Your task to perform on an android device: visit the assistant section in the google photos Image 0: 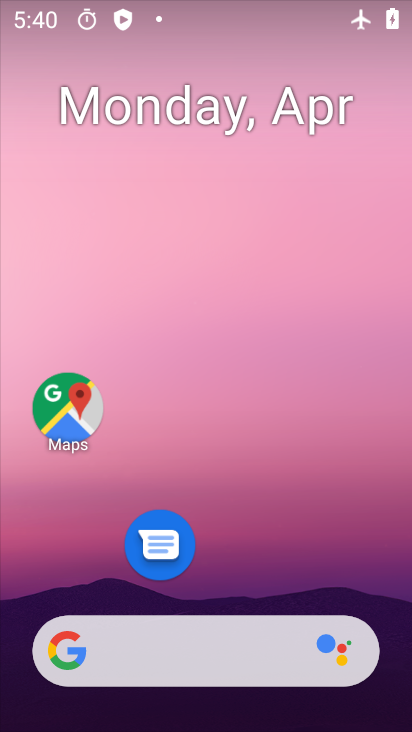
Step 0: drag from (285, 461) to (332, 173)
Your task to perform on an android device: visit the assistant section in the google photos Image 1: 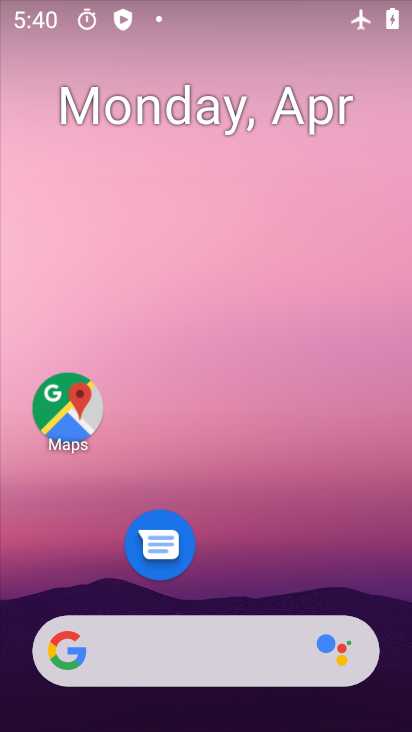
Step 1: drag from (263, 516) to (288, 116)
Your task to perform on an android device: visit the assistant section in the google photos Image 2: 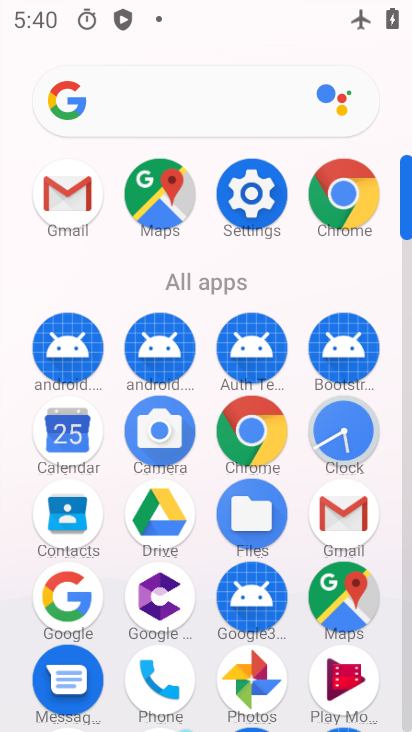
Step 2: click (259, 677)
Your task to perform on an android device: visit the assistant section in the google photos Image 3: 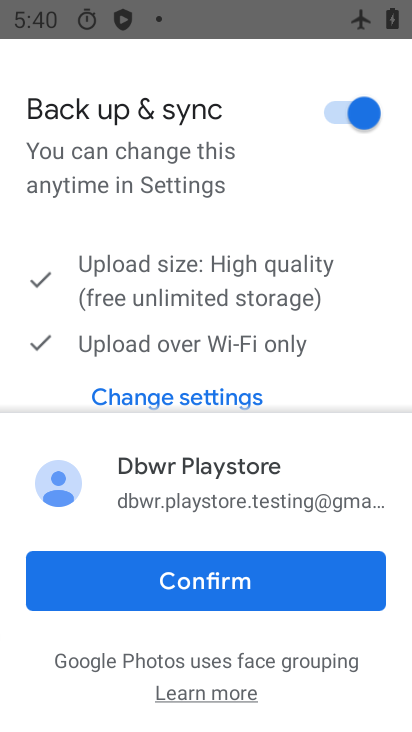
Step 3: click (230, 585)
Your task to perform on an android device: visit the assistant section in the google photos Image 4: 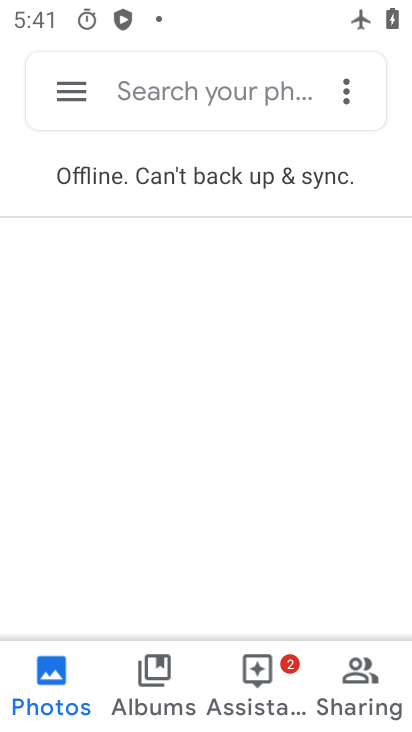
Step 4: click (255, 673)
Your task to perform on an android device: visit the assistant section in the google photos Image 5: 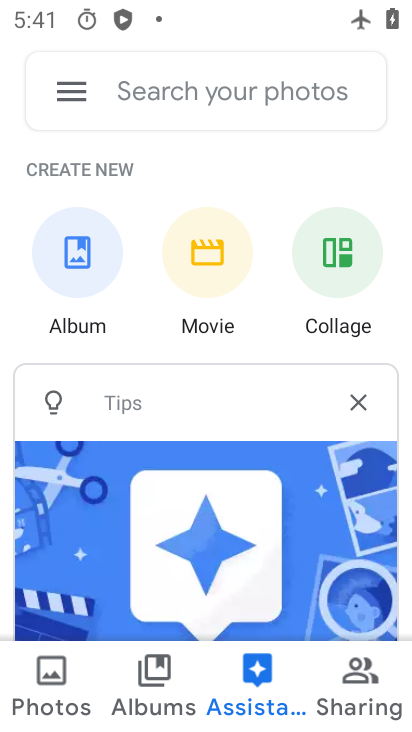
Step 5: task complete